Your task to perform on an android device: change your default location settings in chrome Image 0: 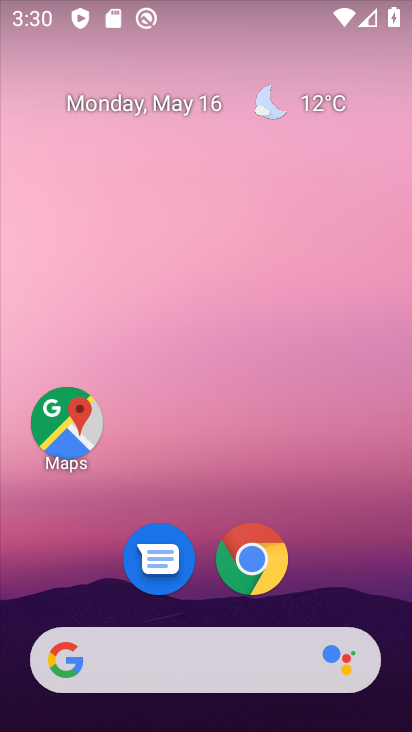
Step 0: click (267, 580)
Your task to perform on an android device: change your default location settings in chrome Image 1: 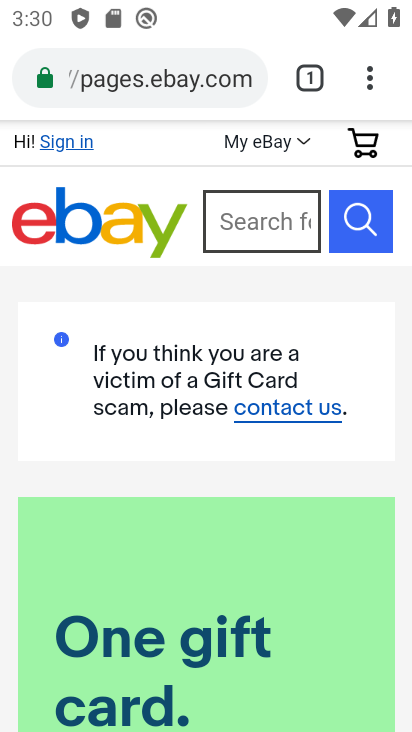
Step 1: click (374, 85)
Your task to perform on an android device: change your default location settings in chrome Image 2: 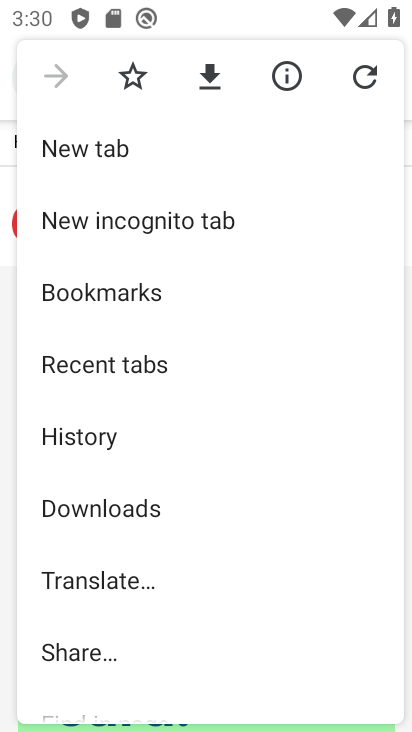
Step 2: drag from (184, 506) to (171, 301)
Your task to perform on an android device: change your default location settings in chrome Image 3: 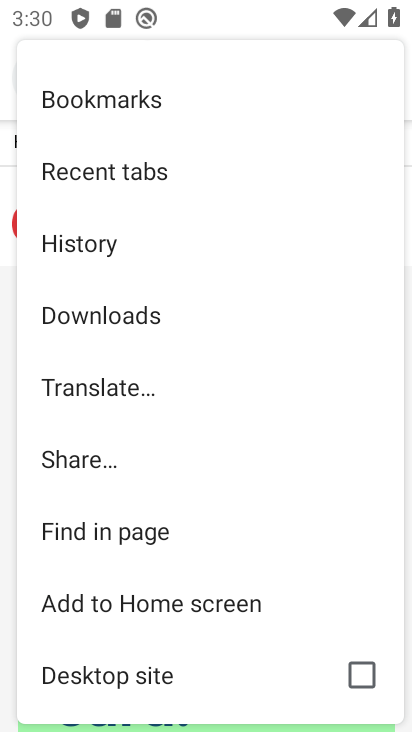
Step 3: drag from (174, 560) to (183, 314)
Your task to perform on an android device: change your default location settings in chrome Image 4: 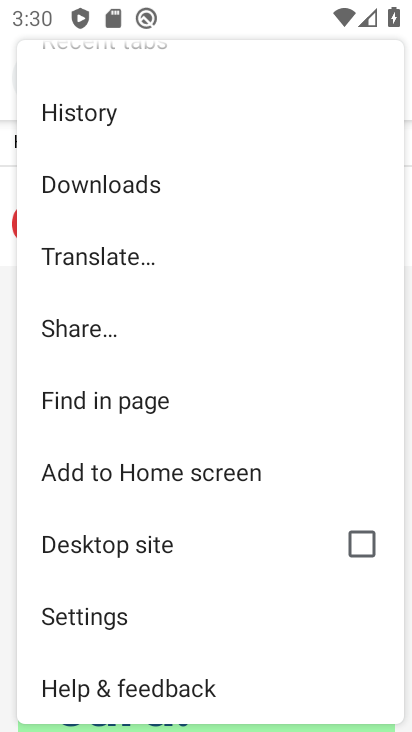
Step 4: click (197, 628)
Your task to perform on an android device: change your default location settings in chrome Image 5: 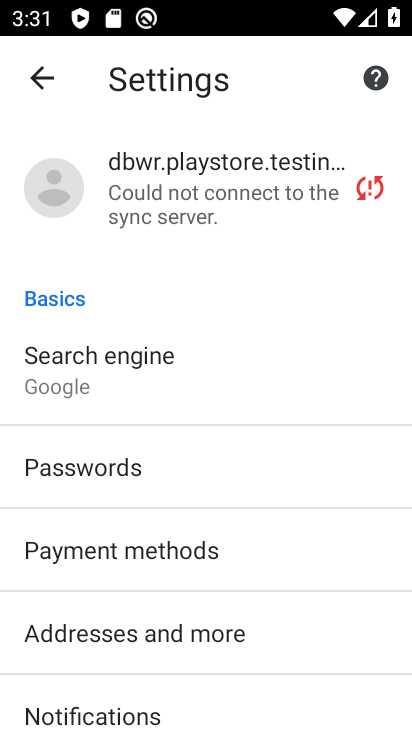
Step 5: drag from (197, 655) to (190, 450)
Your task to perform on an android device: change your default location settings in chrome Image 6: 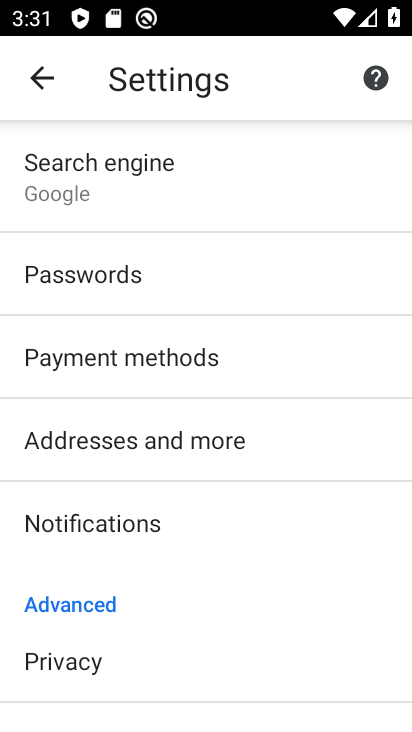
Step 6: click (203, 532)
Your task to perform on an android device: change your default location settings in chrome Image 7: 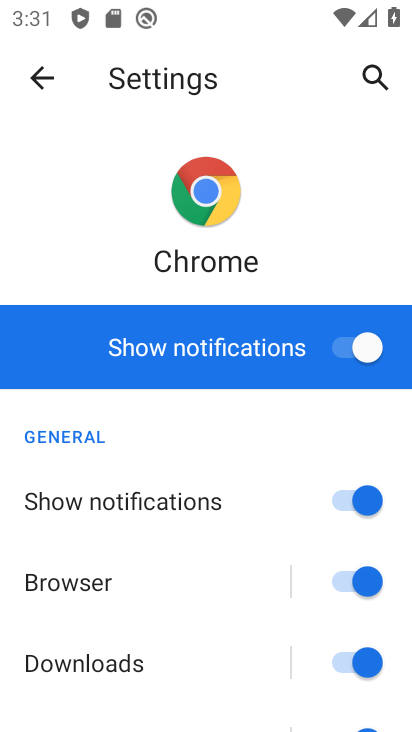
Step 7: click (39, 98)
Your task to perform on an android device: change your default location settings in chrome Image 8: 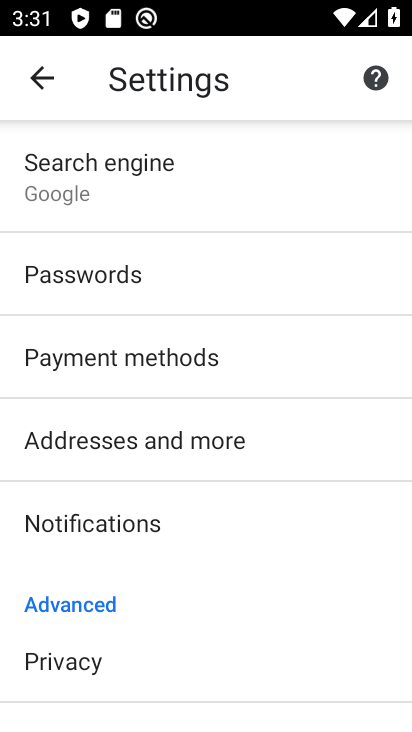
Step 8: drag from (117, 500) to (83, 281)
Your task to perform on an android device: change your default location settings in chrome Image 9: 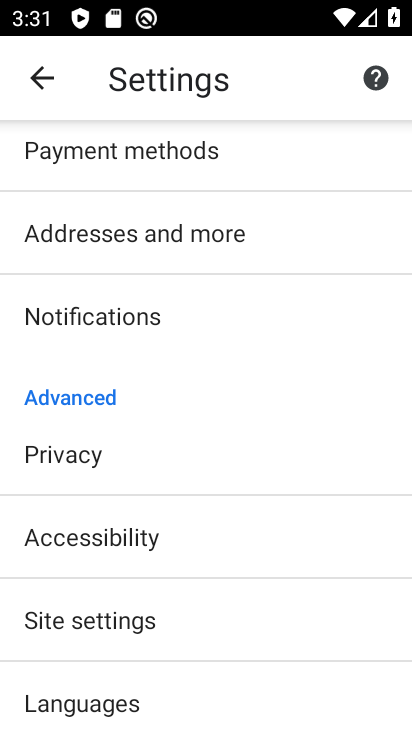
Step 9: drag from (199, 310) to (211, 393)
Your task to perform on an android device: change your default location settings in chrome Image 10: 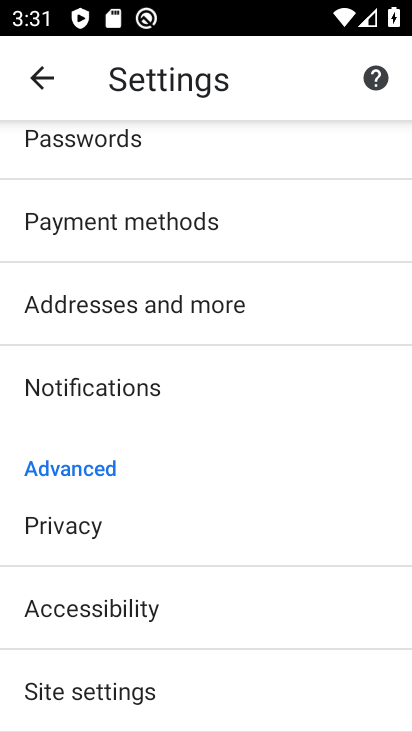
Step 10: click (218, 320)
Your task to perform on an android device: change your default location settings in chrome Image 11: 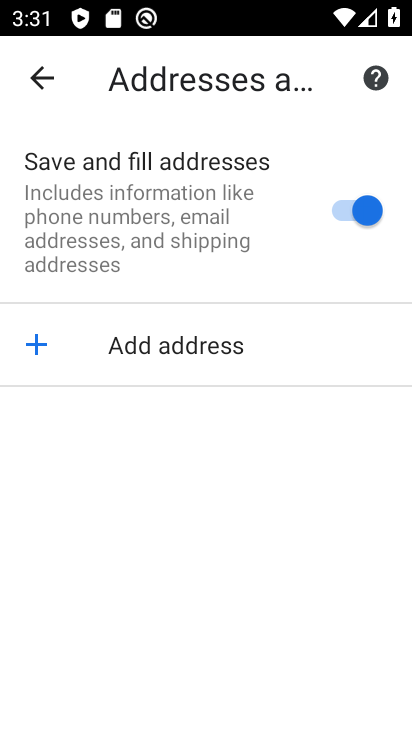
Step 11: task complete